Your task to perform on an android device: turn on notifications settings in the gmail app Image 0: 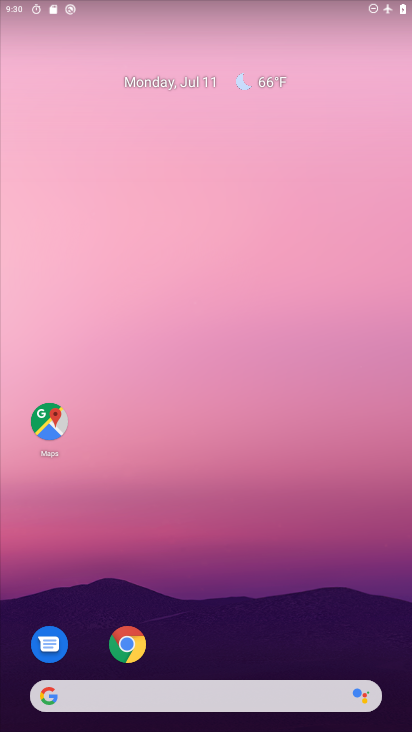
Step 0: drag from (334, 618) to (299, 61)
Your task to perform on an android device: turn on notifications settings in the gmail app Image 1: 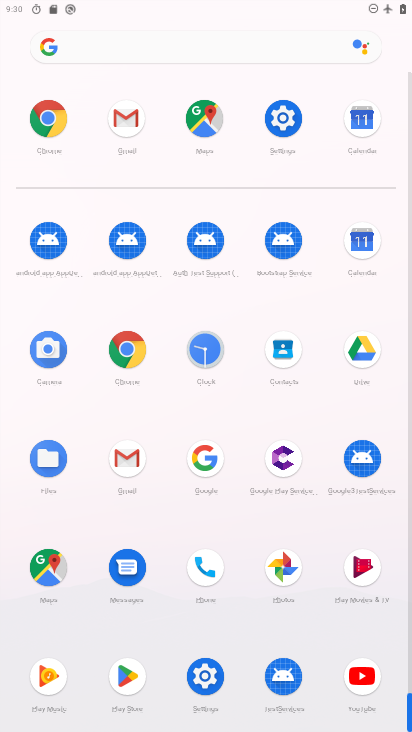
Step 1: click (121, 115)
Your task to perform on an android device: turn on notifications settings in the gmail app Image 2: 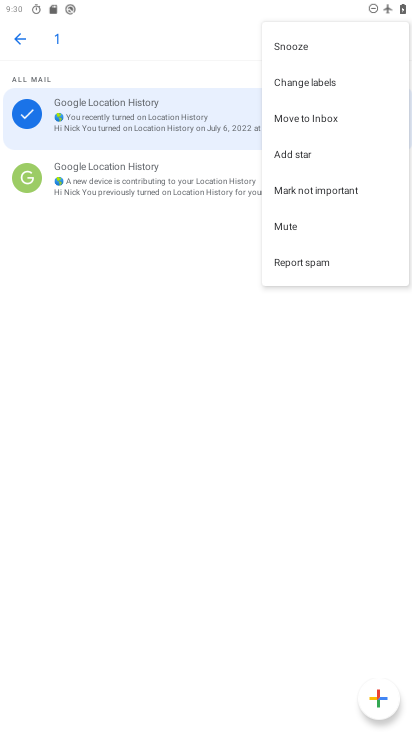
Step 2: click (142, 332)
Your task to perform on an android device: turn on notifications settings in the gmail app Image 3: 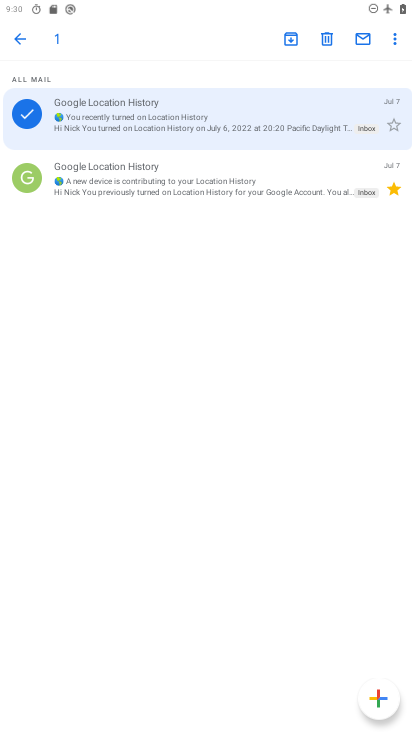
Step 3: click (18, 31)
Your task to perform on an android device: turn on notifications settings in the gmail app Image 4: 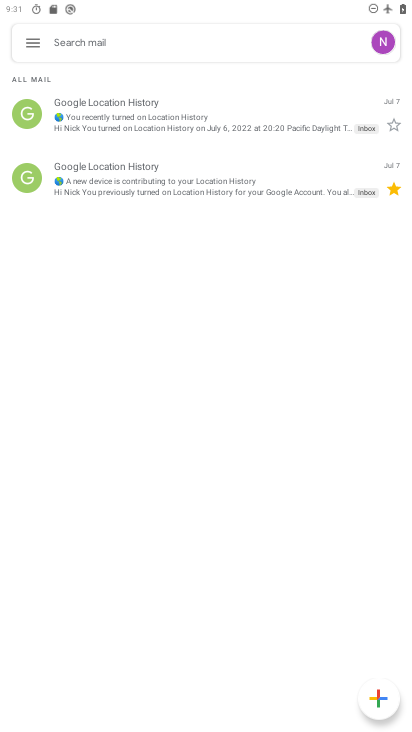
Step 4: click (35, 50)
Your task to perform on an android device: turn on notifications settings in the gmail app Image 5: 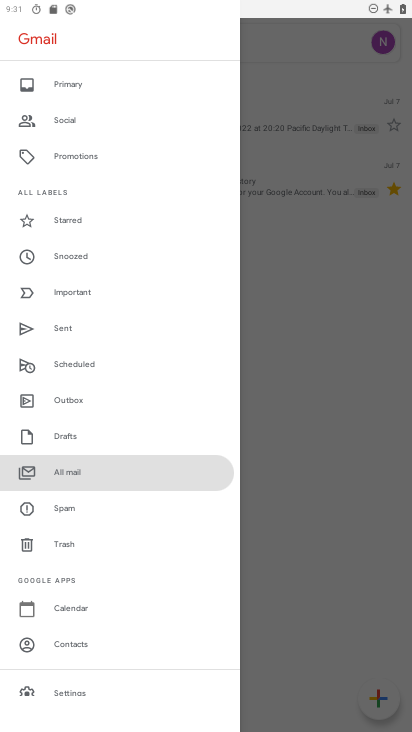
Step 5: click (77, 687)
Your task to perform on an android device: turn on notifications settings in the gmail app Image 6: 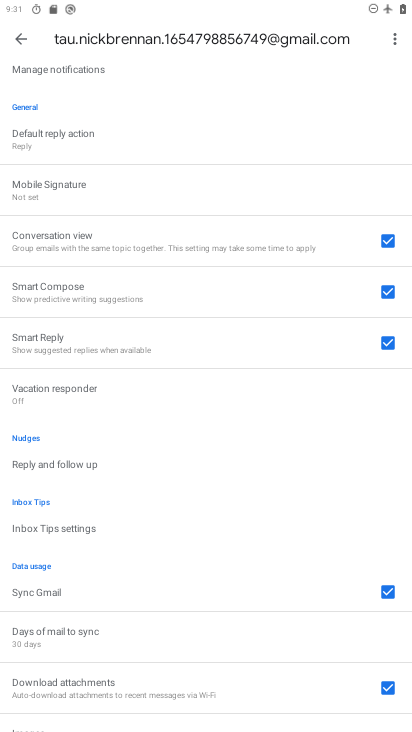
Step 6: drag from (181, 140) to (228, 476)
Your task to perform on an android device: turn on notifications settings in the gmail app Image 7: 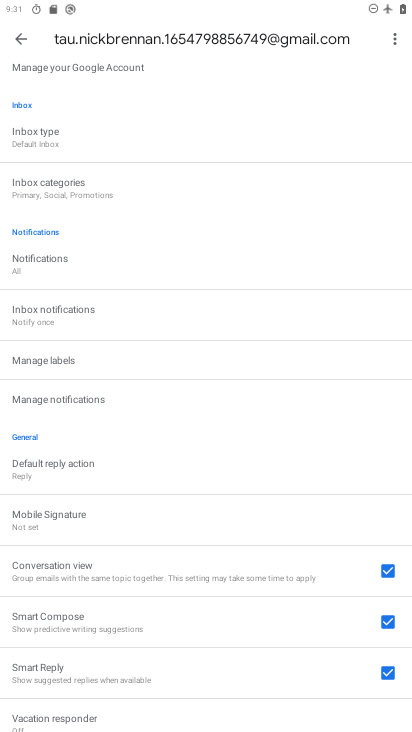
Step 7: click (75, 396)
Your task to perform on an android device: turn on notifications settings in the gmail app Image 8: 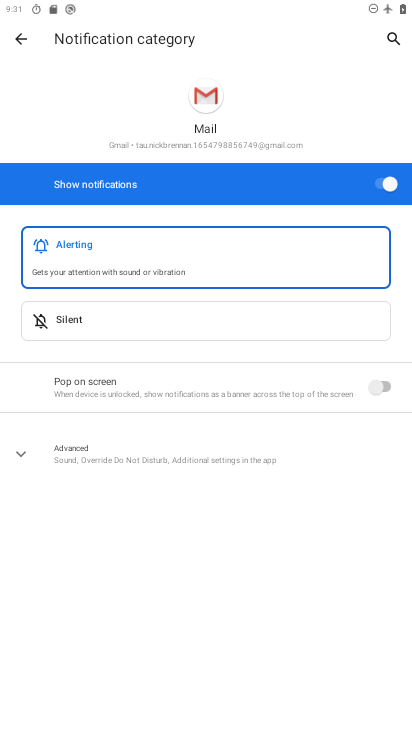
Step 8: task complete